Your task to perform on an android device: turn off improve location accuracy Image 0: 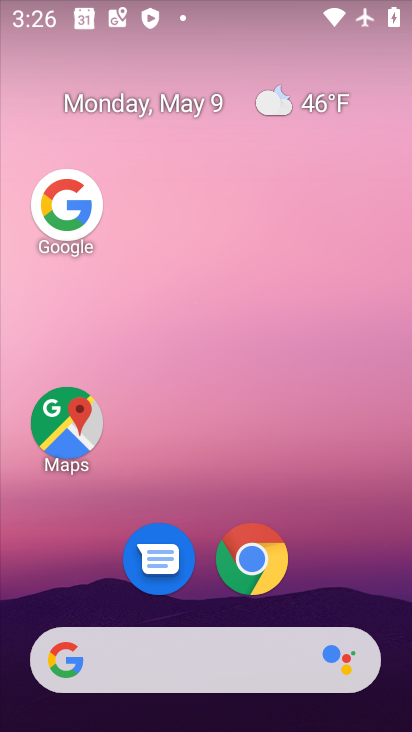
Step 0: drag from (337, 598) to (329, 148)
Your task to perform on an android device: turn off improve location accuracy Image 1: 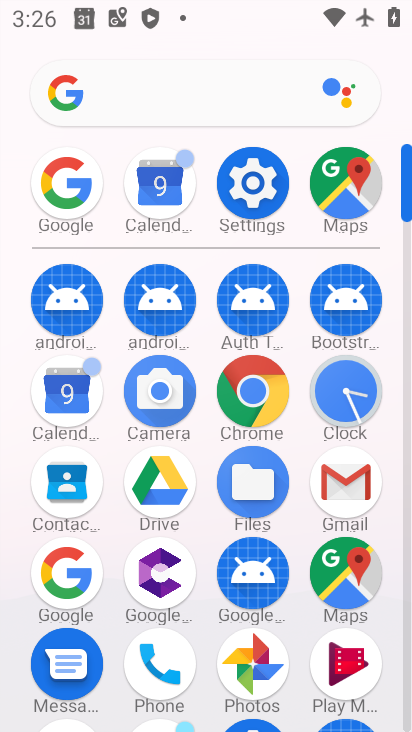
Step 1: click (263, 189)
Your task to perform on an android device: turn off improve location accuracy Image 2: 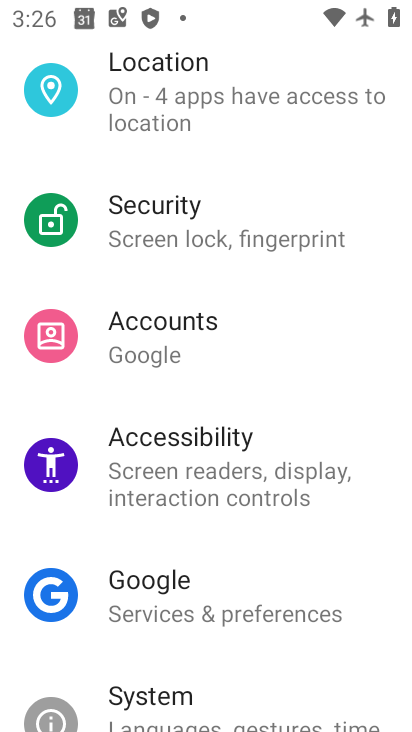
Step 2: drag from (268, 658) to (283, 596)
Your task to perform on an android device: turn off improve location accuracy Image 3: 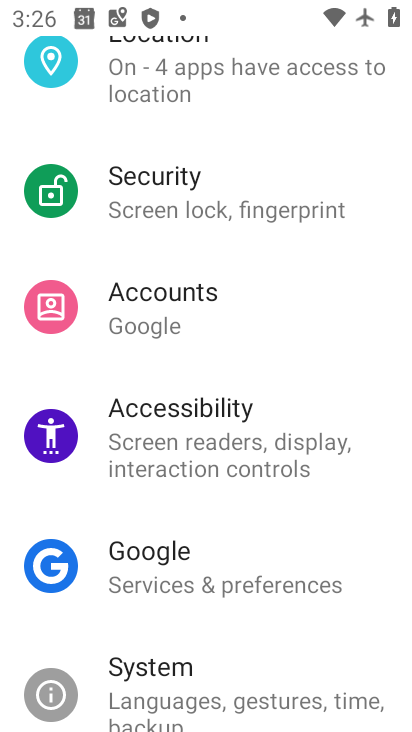
Step 3: click (147, 80)
Your task to perform on an android device: turn off improve location accuracy Image 4: 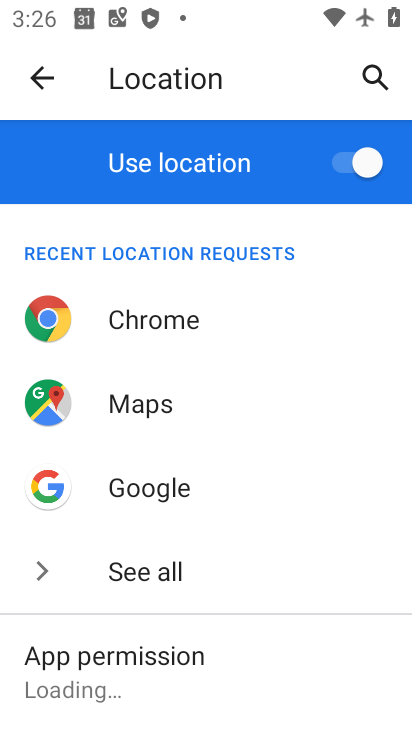
Step 4: drag from (279, 656) to (318, 252)
Your task to perform on an android device: turn off improve location accuracy Image 5: 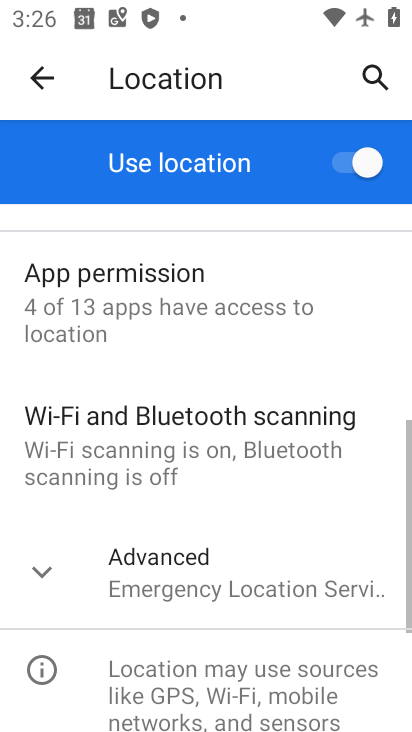
Step 5: click (234, 553)
Your task to perform on an android device: turn off improve location accuracy Image 6: 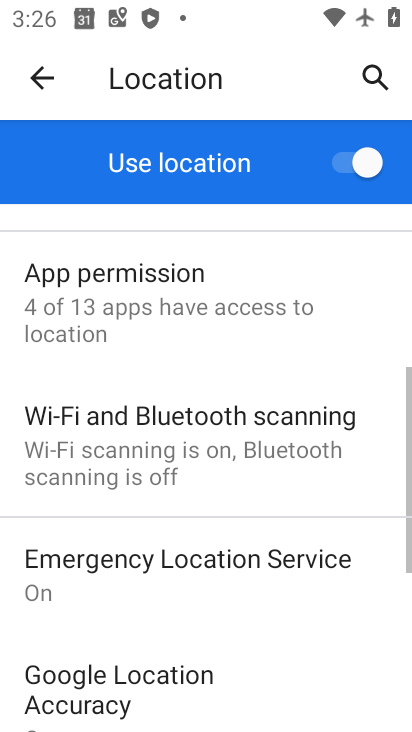
Step 6: drag from (226, 650) to (223, 365)
Your task to perform on an android device: turn off improve location accuracy Image 7: 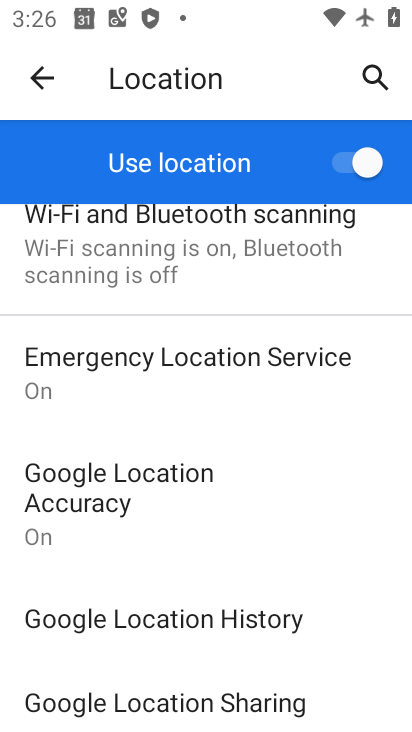
Step 7: drag from (300, 630) to (322, 328)
Your task to perform on an android device: turn off improve location accuracy Image 8: 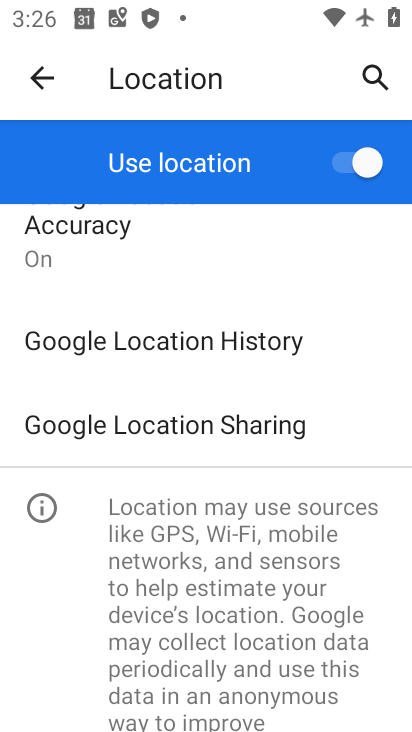
Step 8: click (131, 237)
Your task to perform on an android device: turn off improve location accuracy Image 9: 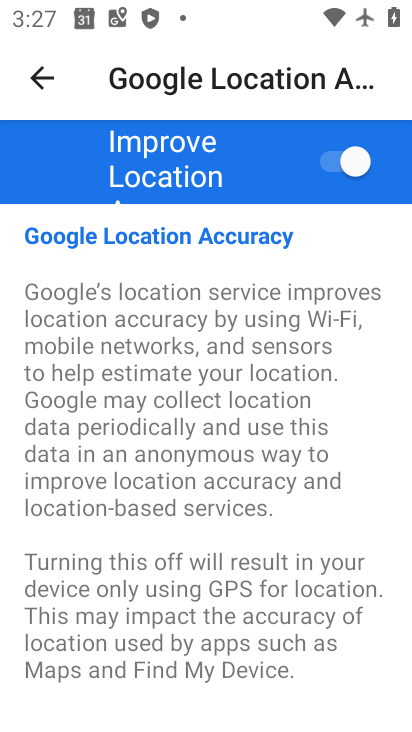
Step 9: click (341, 160)
Your task to perform on an android device: turn off improve location accuracy Image 10: 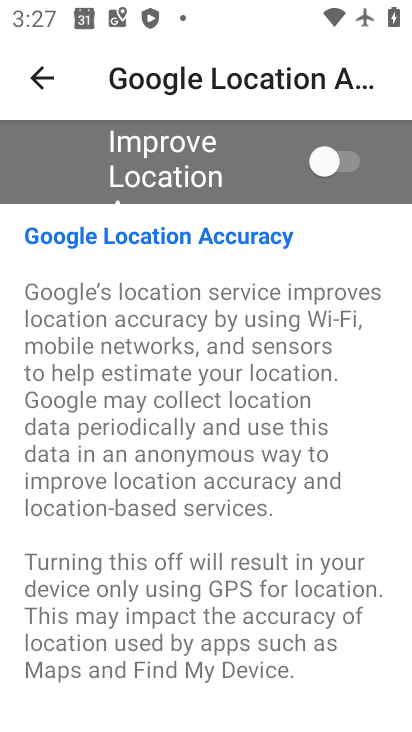
Step 10: task complete